Your task to perform on an android device: Open calendar and show me the second week of next month Image 0: 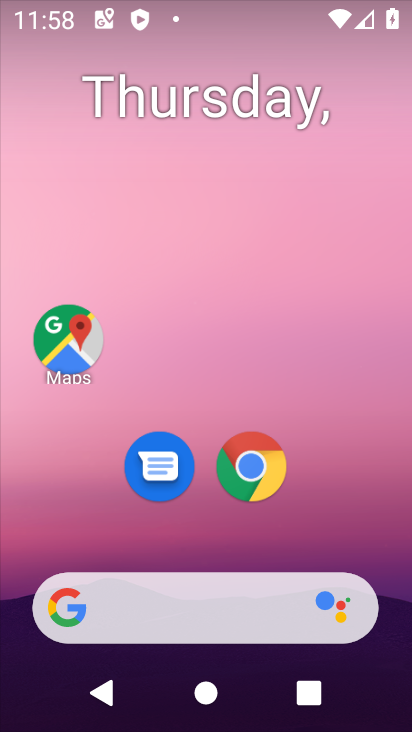
Step 0: drag from (386, 652) to (275, 90)
Your task to perform on an android device: Open calendar and show me the second week of next month Image 1: 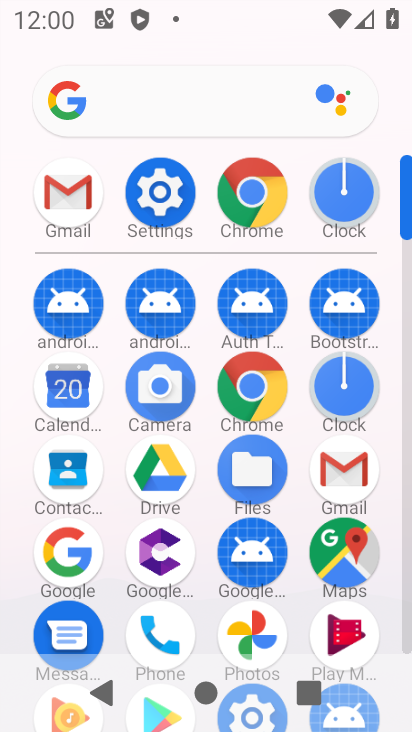
Step 1: click (72, 376)
Your task to perform on an android device: Open calendar and show me the second week of next month Image 2: 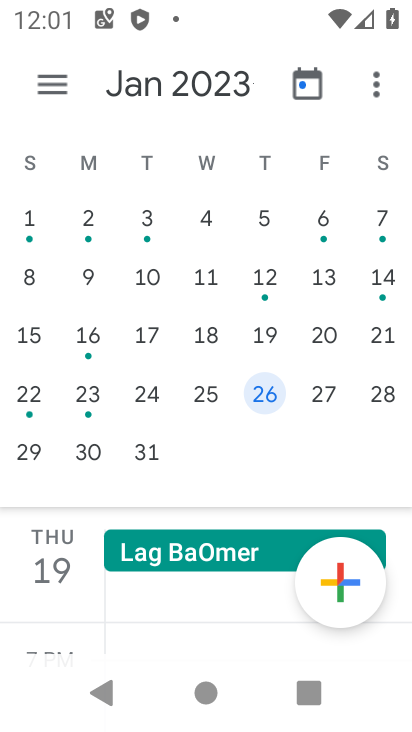
Step 2: drag from (375, 345) to (56, 304)
Your task to perform on an android device: Open calendar and show me the second week of next month Image 3: 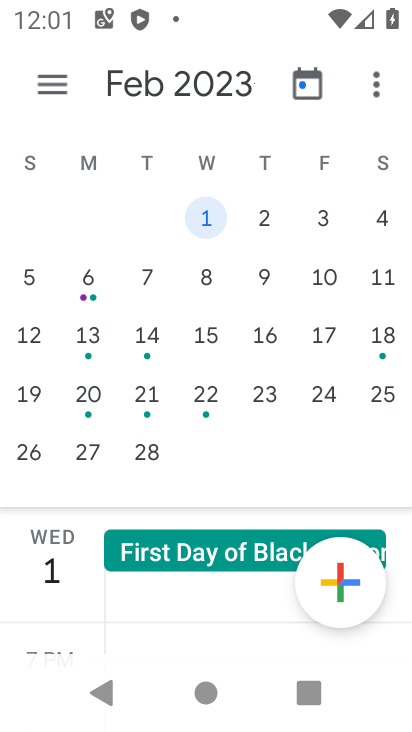
Step 3: click (152, 326)
Your task to perform on an android device: Open calendar and show me the second week of next month Image 4: 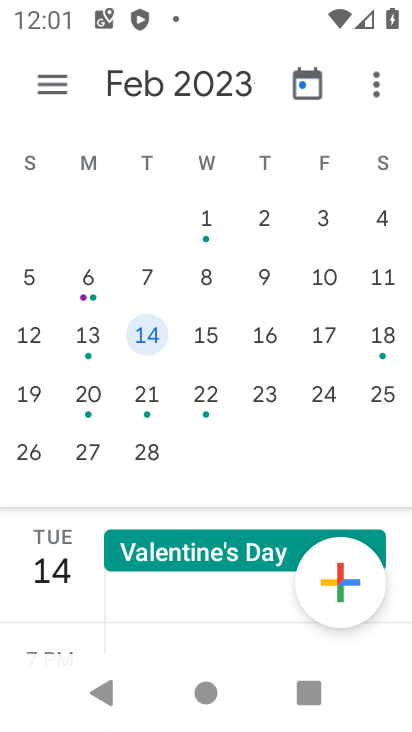
Step 4: task complete